Your task to perform on an android device: Go to accessibility settings Image 0: 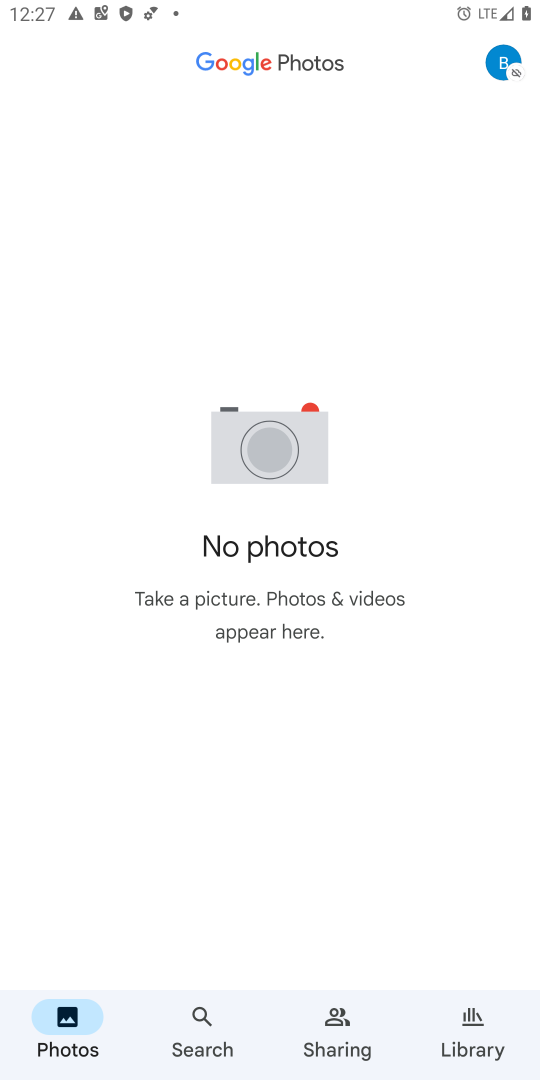
Step 0: press home button
Your task to perform on an android device: Go to accessibility settings Image 1: 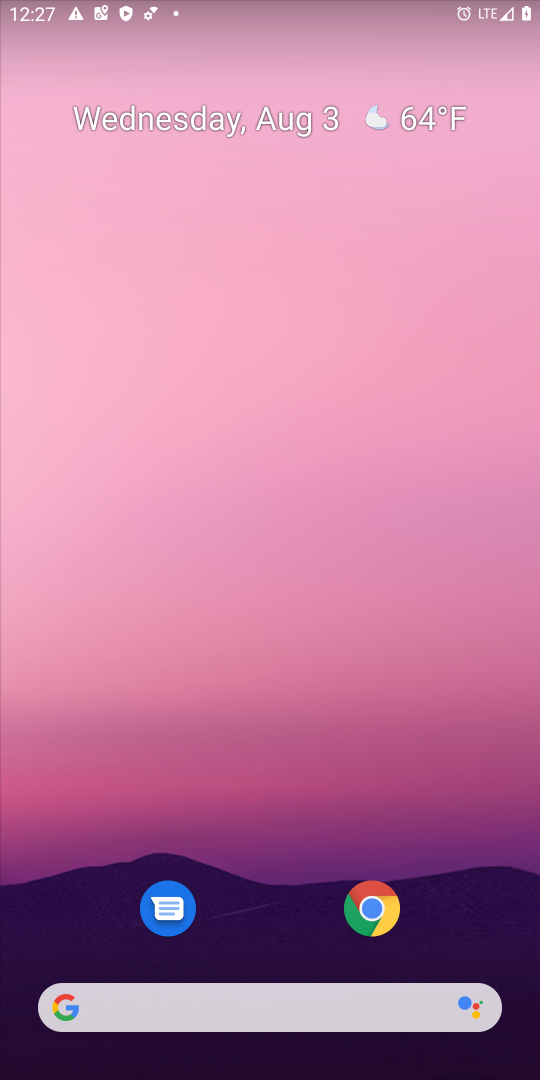
Step 1: drag from (246, 741) to (347, 35)
Your task to perform on an android device: Go to accessibility settings Image 2: 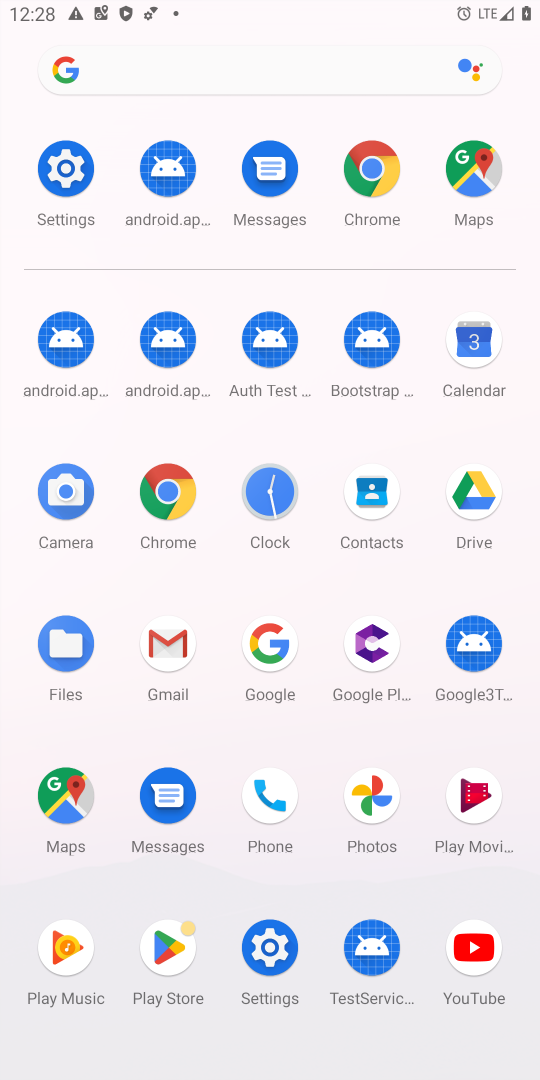
Step 2: click (78, 187)
Your task to perform on an android device: Go to accessibility settings Image 3: 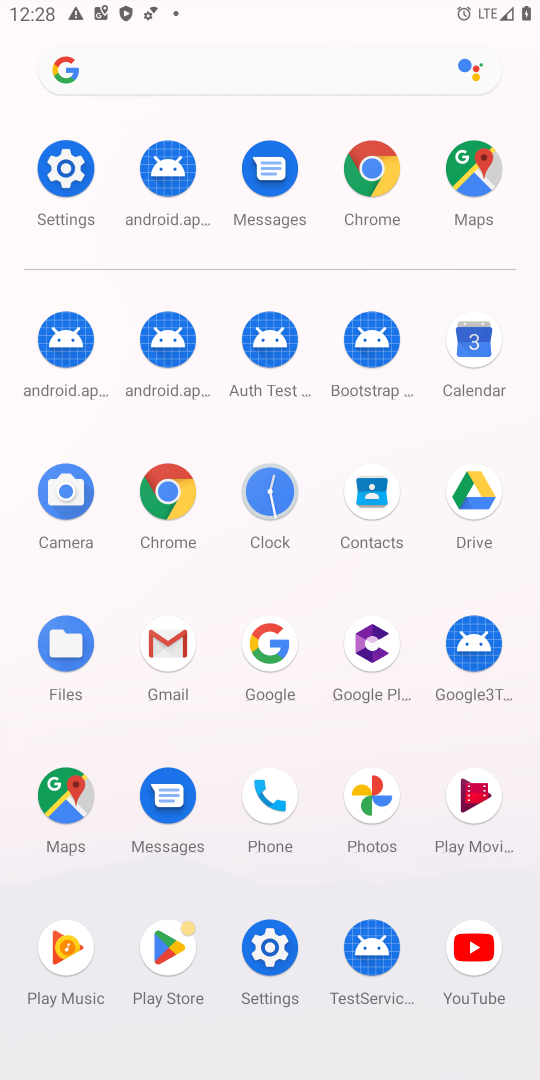
Step 3: click (77, 186)
Your task to perform on an android device: Go to accessibility settings Image 4: 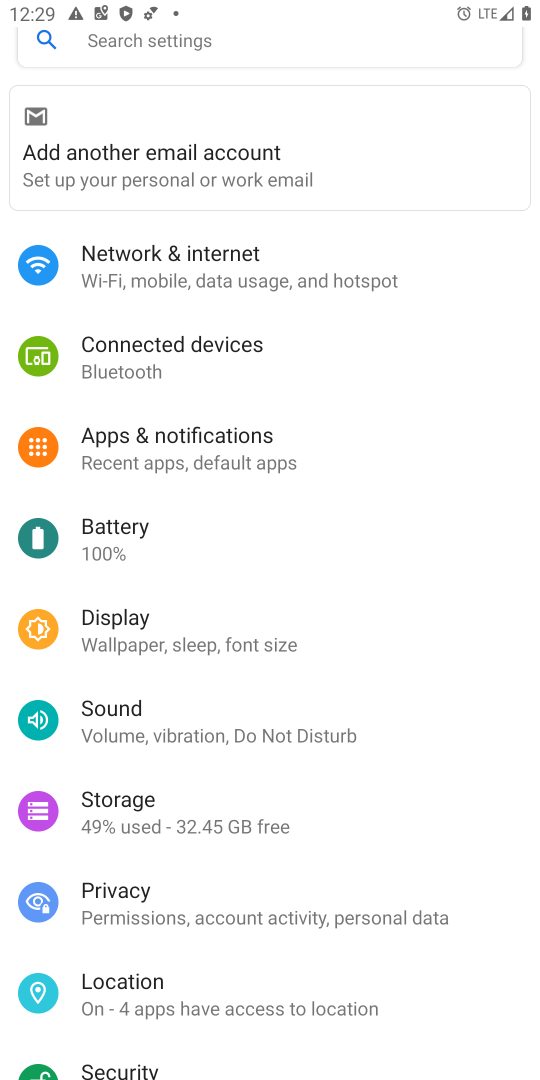
Step 4: drag from (243, 847) to (314, 148)
Your task to perform on an android device: Go to accessibility settings Image 5: 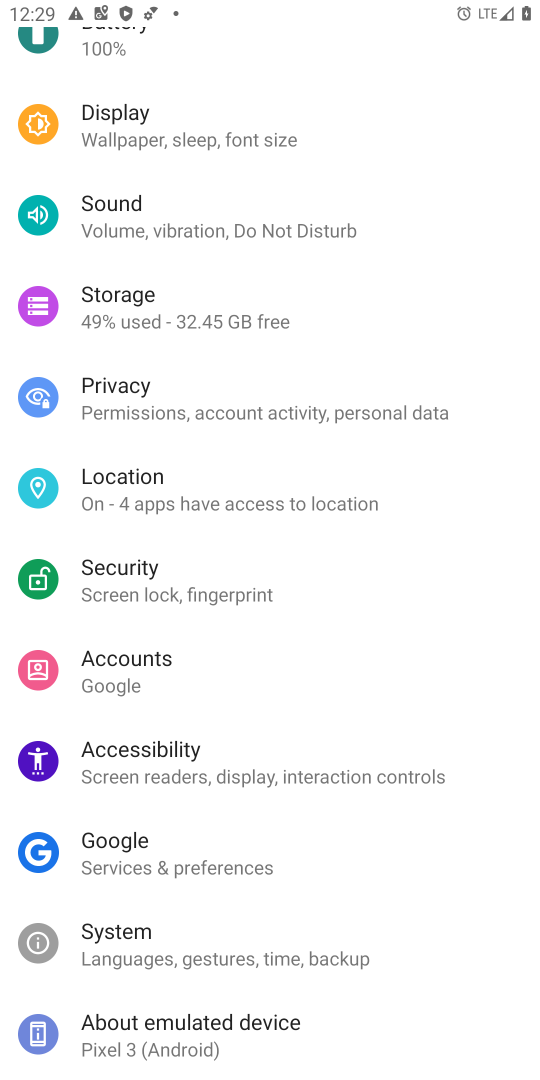
Step 5: click (208, 766)
Your task to perform on an android device: Go to accessibility settings Image 6: 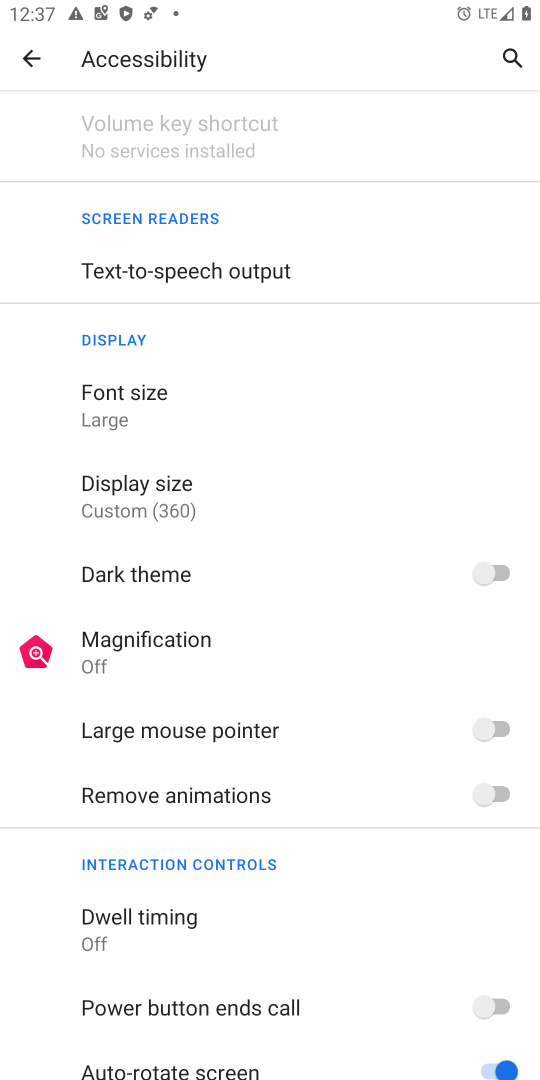
Step 6: press home button
Your task to perform on an android device: Go to accessibility settings Image 7: 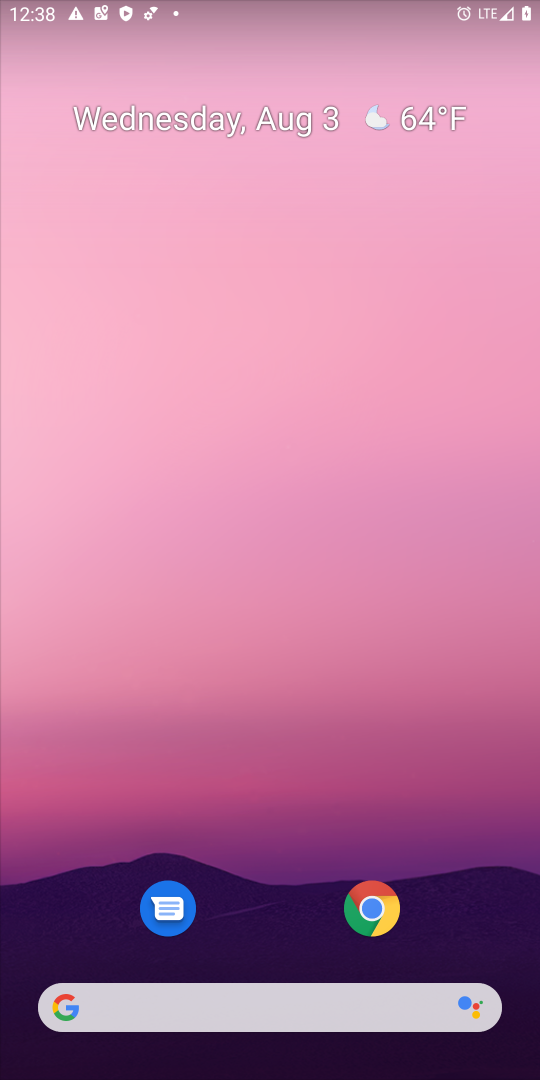
Step 7: drag from (312, 735) to (404, 10)
Your task to perform on an android device: Go to accessibility settings Image 8: 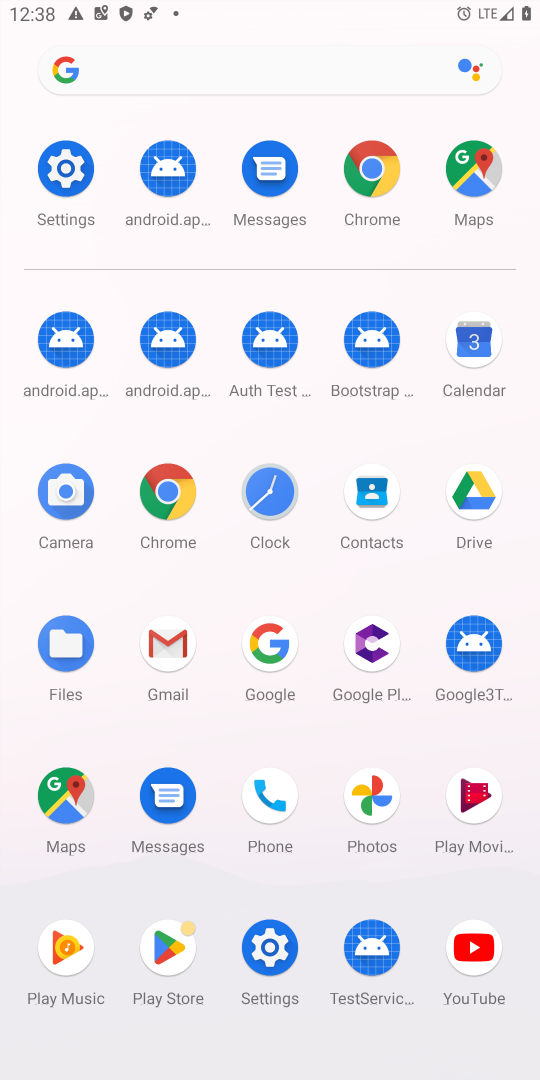
Step 8: click (275, 958)
Your task to perform on an android device: Go to accessibility settings Image 9: 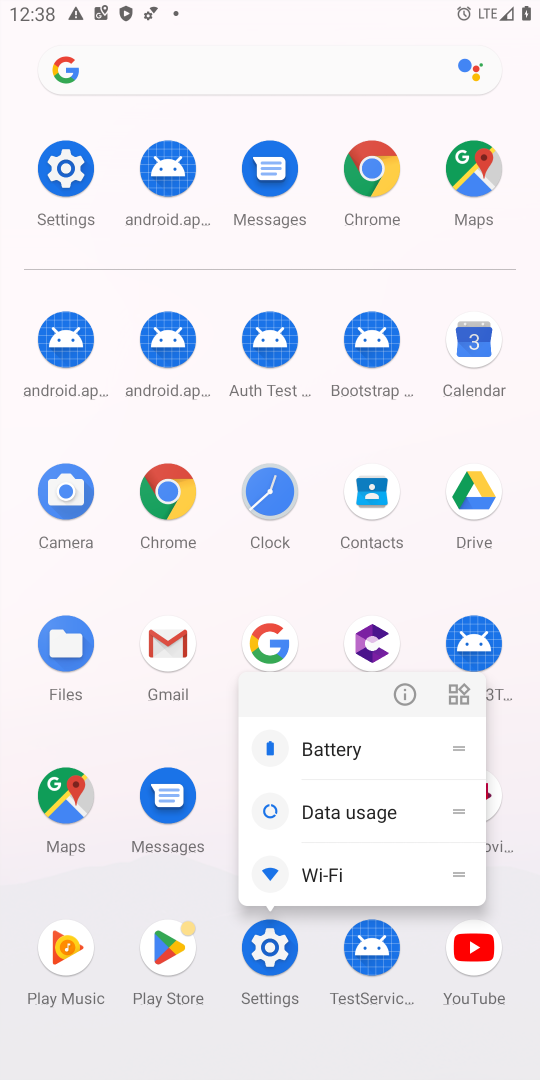
Step 9: click (264, 966)
Your task to perform on an android device: Go to accessibility settings Image 10: 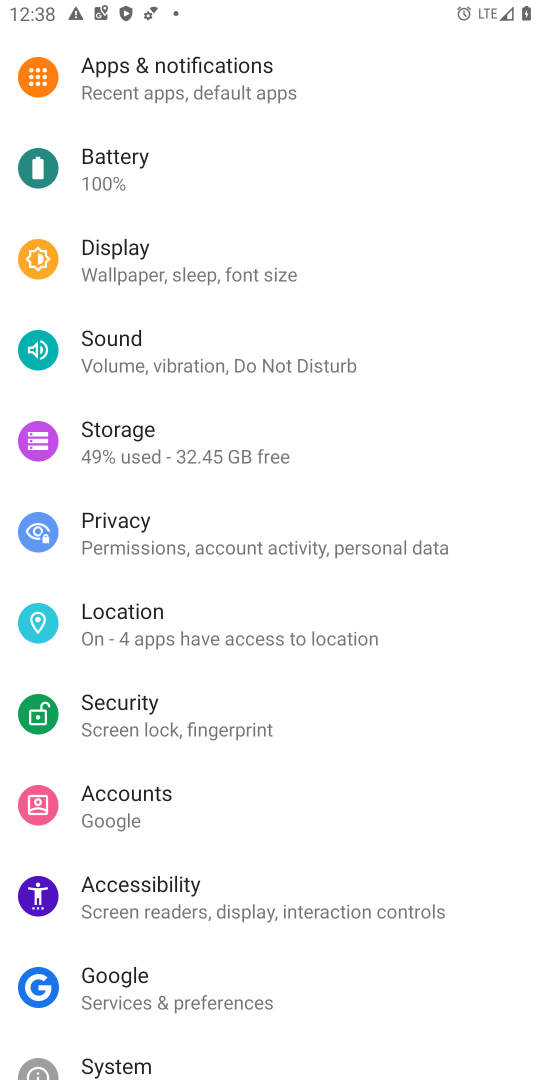
Step 10: click (202, 887)
Your task to perform on an android device: Go to accessibility settings Image 11: 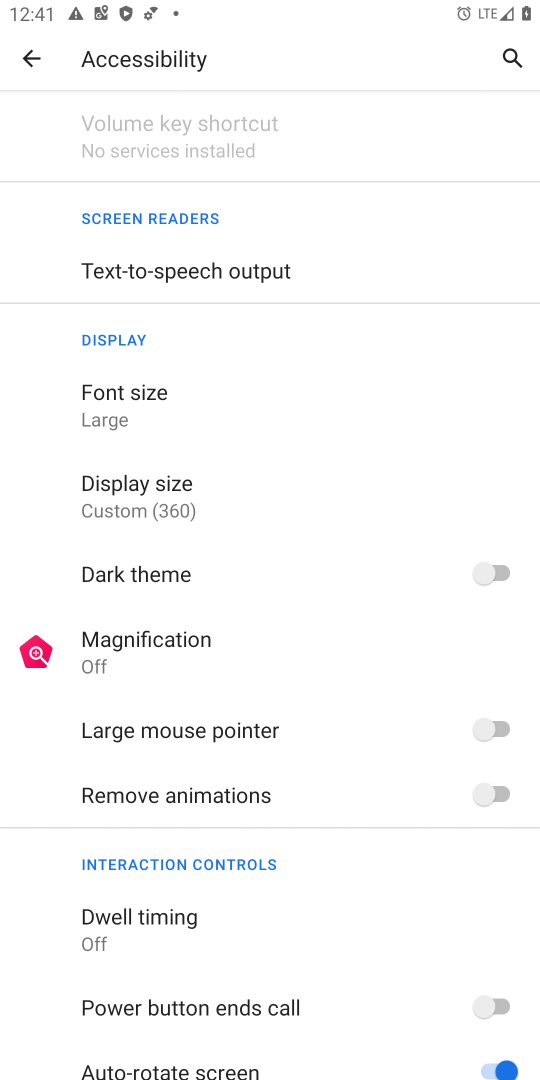
Step 11: task complete